Your task to perform on an android device: Open Google Chrome and open the bookmarks view Image 0: 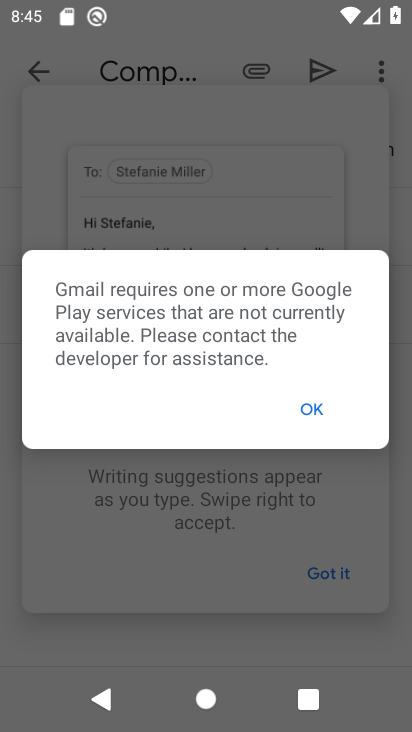
Step 0: click (320, 408)
Your task to perform on an android device: Open Google Chrome and open the bookmarks view Image 1: 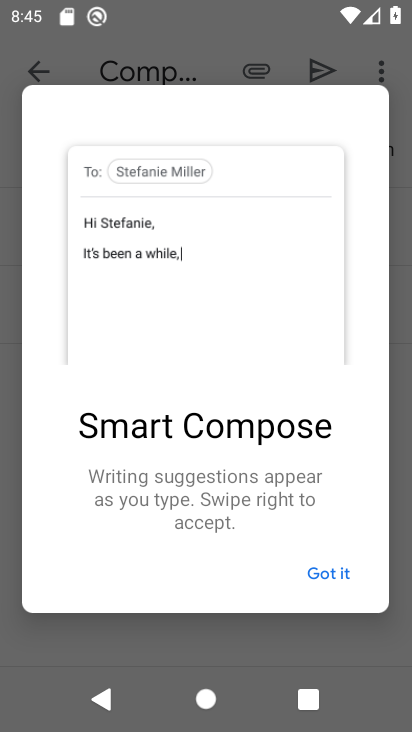
Step 1: click (307, 580)
Your task to perform on an android device: Open Google Chrome and open the bookmarks view Image 2: 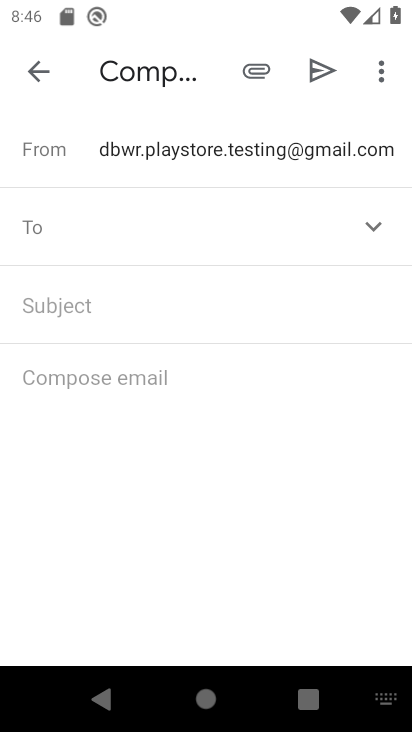
Step 2: drag from (218, 448) to (316, 23)
Your task to perform on an android device: Open Google Chrome and open the bookmarks view Image 3: 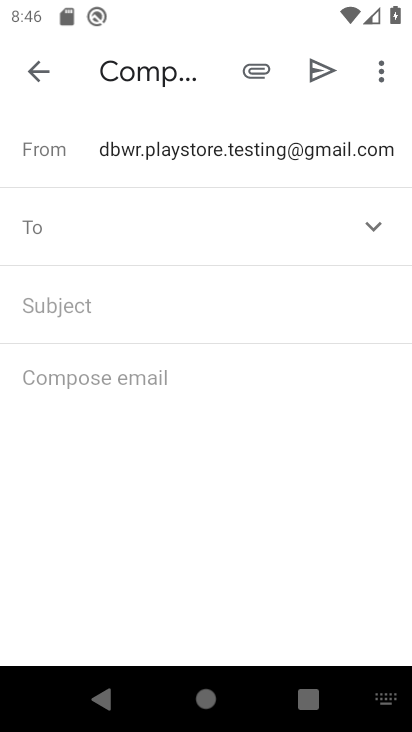
Step 3: drag from (249, 455) to (270, 205)
Your task to perform on an android device: Open Google Chrome and open the bookmarks view Image 4: 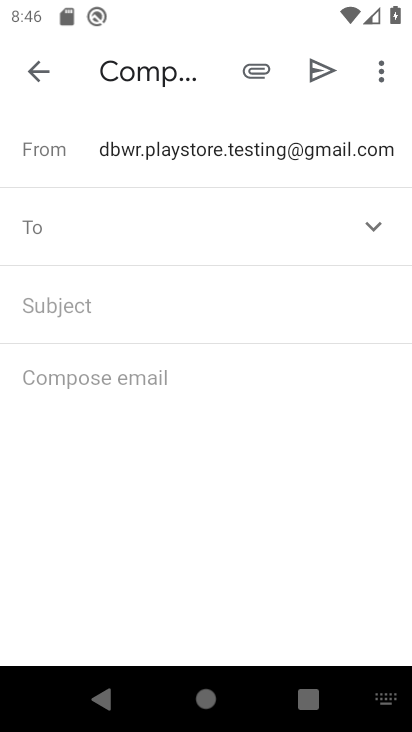
Step 4: press home button
Your task to perform on an android device: Open Google Chrome and open the bookmarks view Image 5: 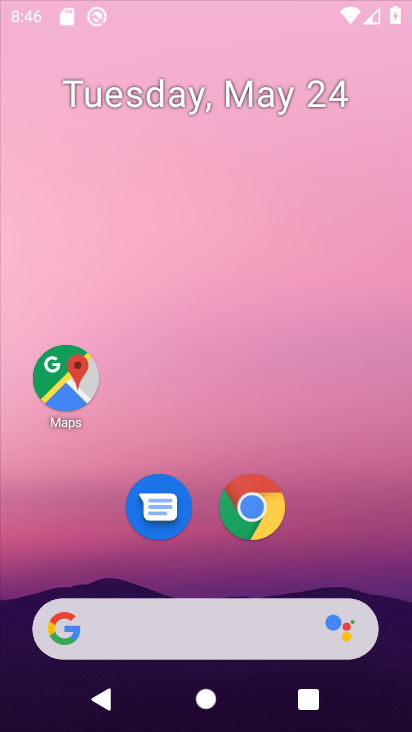
Step 5: drag from (244, 514) to (383, 0)
Your task to perform on an android device: Open Google Chrome and open the bookmarks view Image 6: 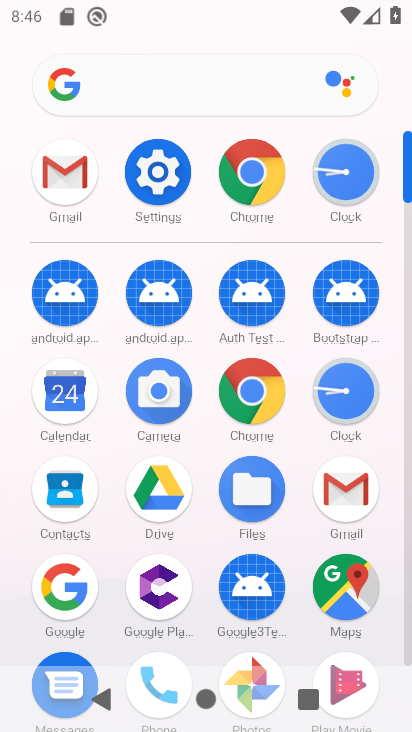
Step 6: click (255, 395)
Your task to perform on an android device: Open Google Chrome and open the bookmarks view Image 7: 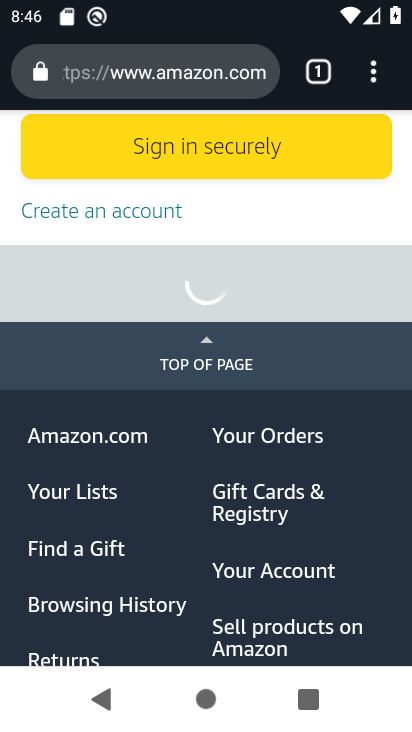
Step 7: click (377, 72)
Your task to perform on an android device: Open Google Chrome and open the bookmarks view Image 8: 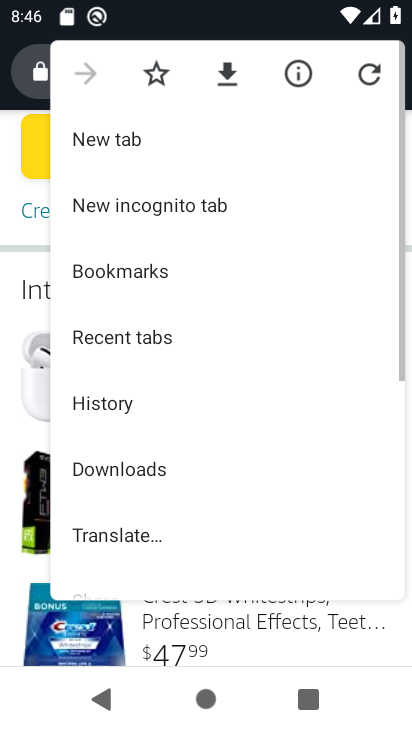
Step 8: drag from (231, 498) to (314, 121)
Your task to perform on an android device: Open Google Chrome and open the bookmarks view Image 9: 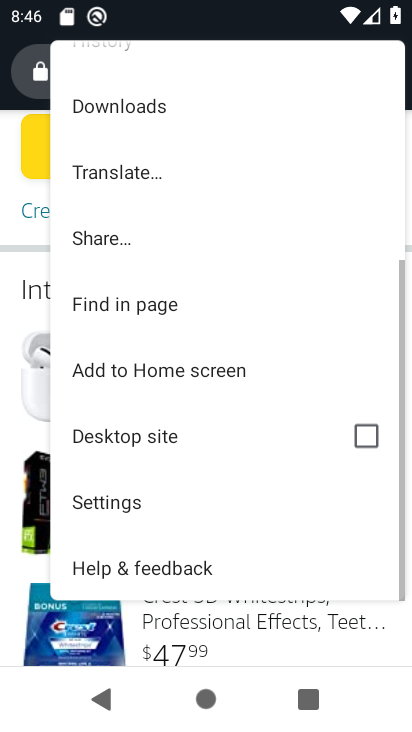
Step 9: drag from (210, 309) to (256, 617)
Your task to perform on an android device: Open Google Chrome and open the bookmarks view Image 10: 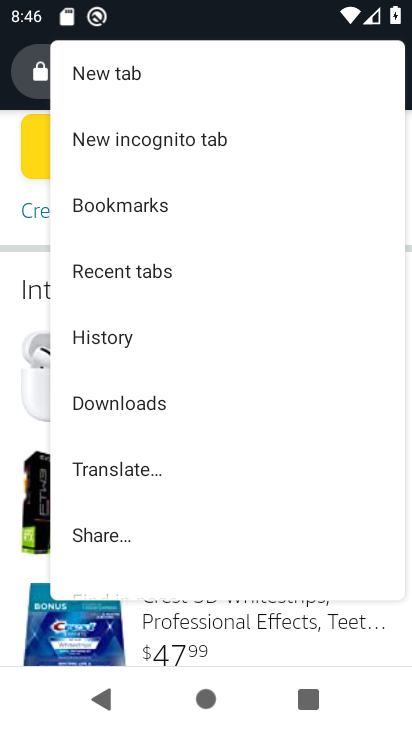
Step 10: click (161, 199)
Your task to perform on an android device: Open Google Chrome and open the bookmarks view Image 11: 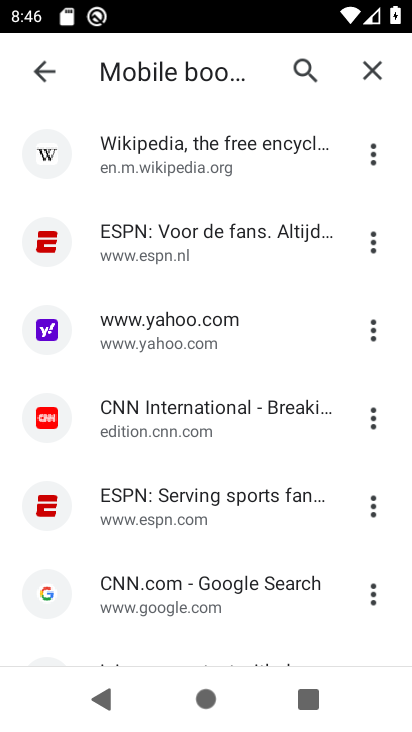
Step 11: task complete